Your task to perform on an android device: find photos in the google photos app Image 0: 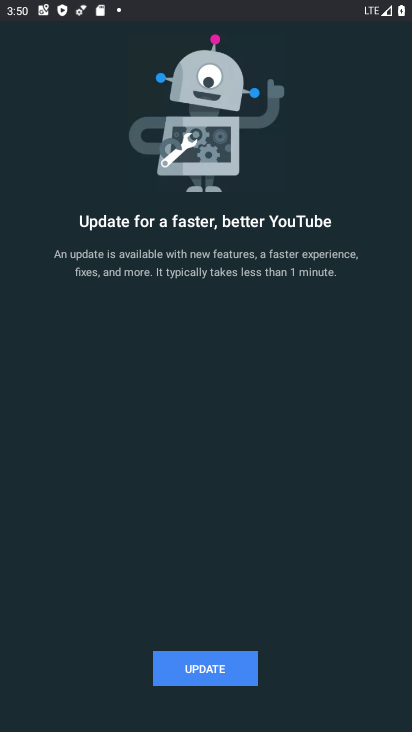
Step 0: press back button
Your task to perform on an android device: find photos in the google photos app Image 1: 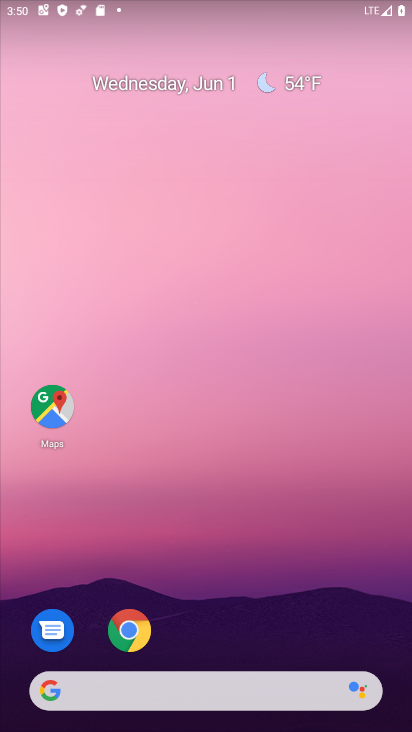
Step 1: drag from (283, 455) to (180, 5)
Your task to perform on an android device: find photos in the google photos app Image 2: 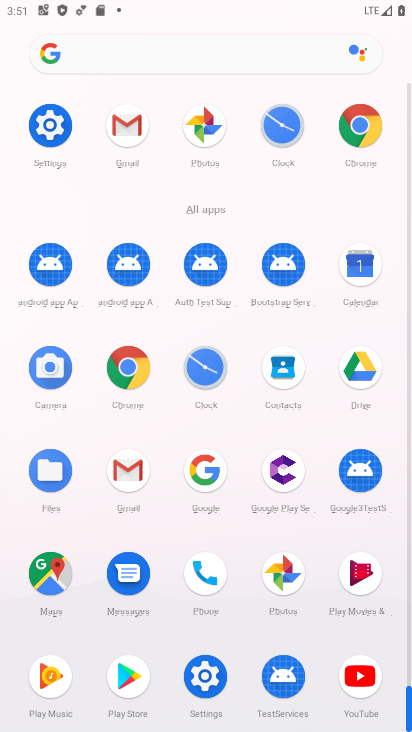
Step 2: drag from (14, 567) to (5, 195)
Your task to perform on an android device: find photos in the google photos app Image 3: 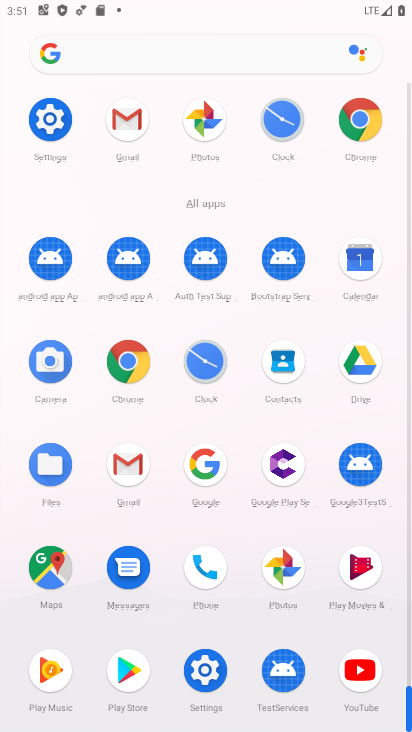
Step 3: click (276, 560)
Your task to perform on an android device: find photos in the google photos app Image 4: 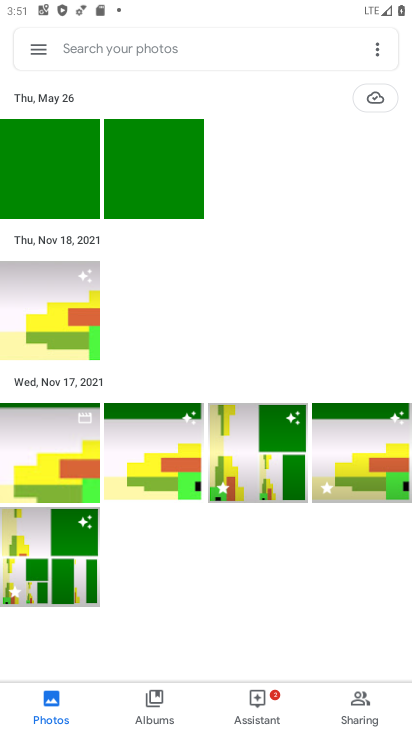
Step 4: click (20, 47)
Your task to perform on an android device: find photos in the google photos app Image 5: 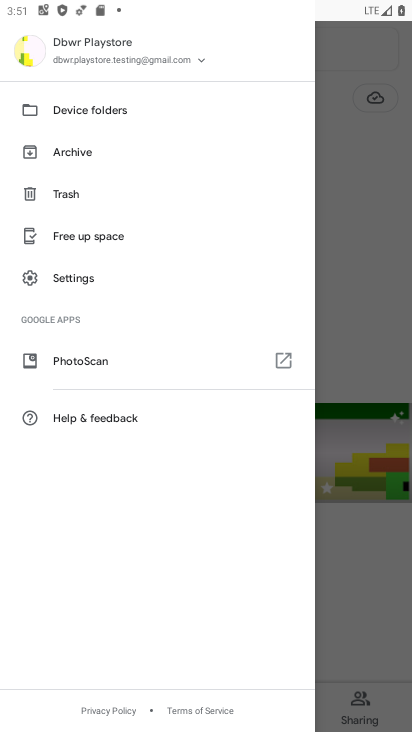
Step 5: click (368, 306)
Your task to perform on an android device: find photos in the google photos app Image 6: 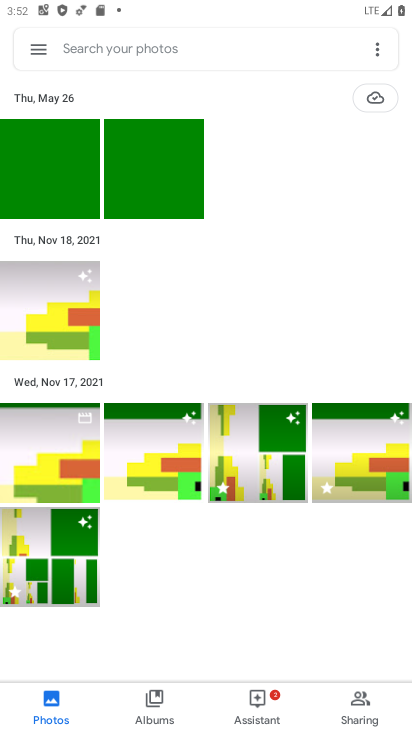
Step 6: task complete